Your task to perform on an android device: turn pop-ups off in chrome Image 0: 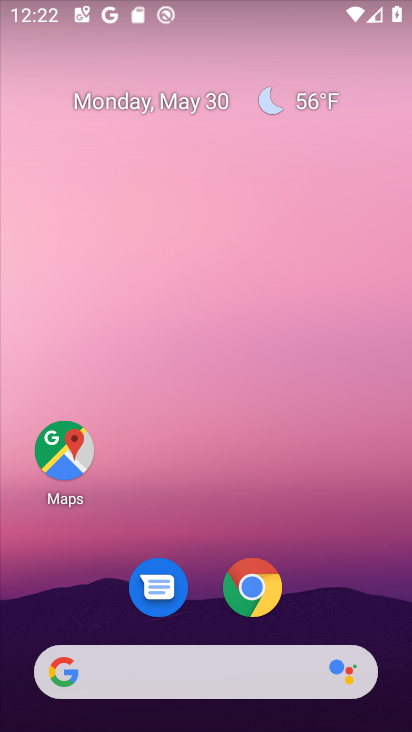
Step 0: click (273, 592)
Your task to perform on an android device: turn pop-ups off in chrome Image 1: 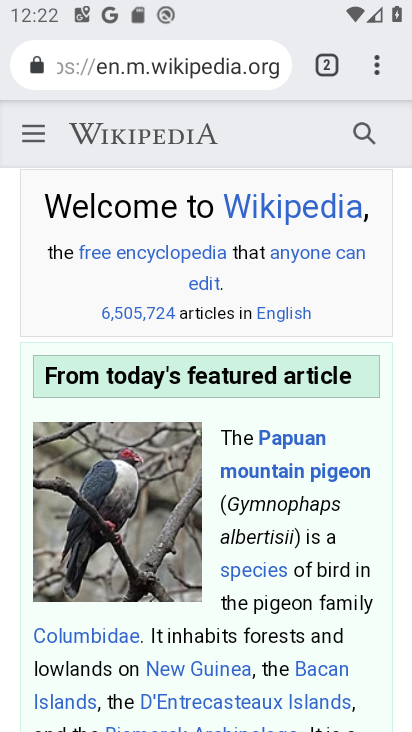
Step 1: click (382, 58)
Your task to perform on an android device: turn pop-ups off in chrome Image 2: 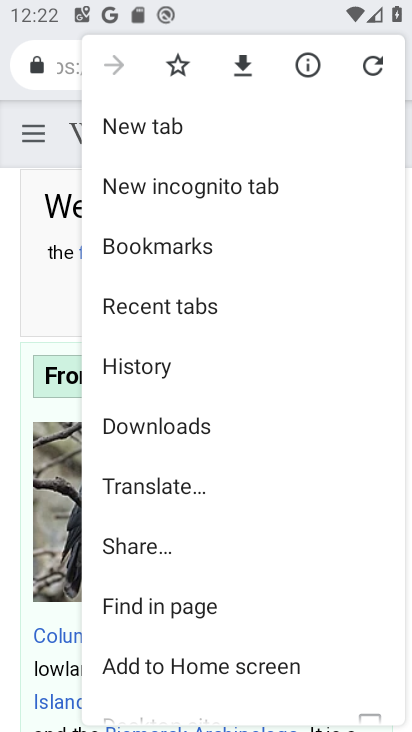
Step 2: drag from (249, 631) to (149, 197)
Your task to perform on an android device: turn pop-ups off in chrome Image 3: 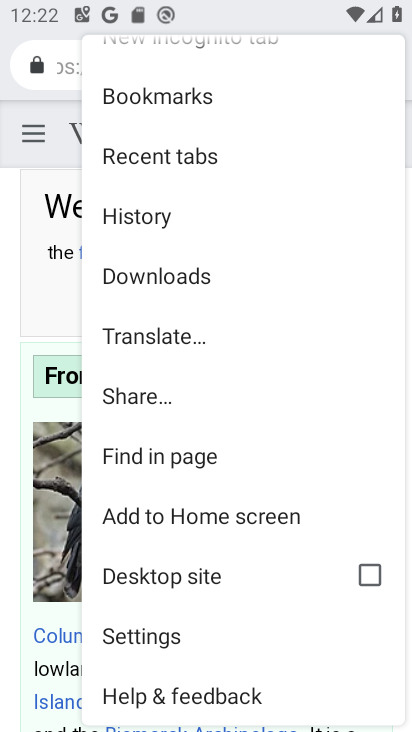
Step 3: drag from (211, 629) to (147, 228)
Your task to perform on an android device: turn pop-ups off in chrome Image 4: 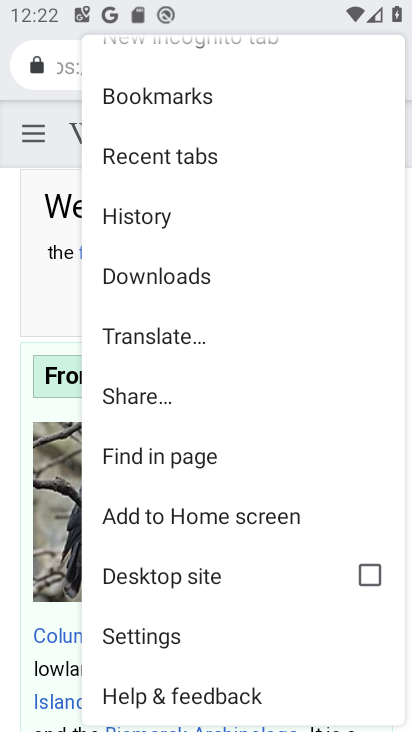
Step 4: click (198, 631)
Your task to perform on an android device: turn pop-ups off in chrome Image 5: 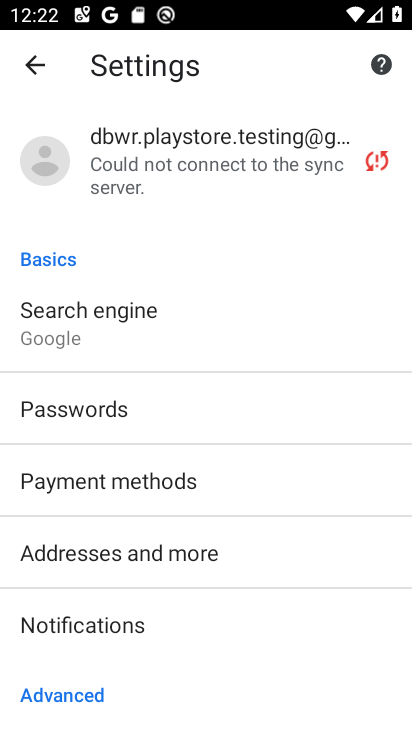
Step 5: drag from (222, 671) to (185, 221)
Your task to perform on an android device: turn pop-ups off in chrome Image 6: 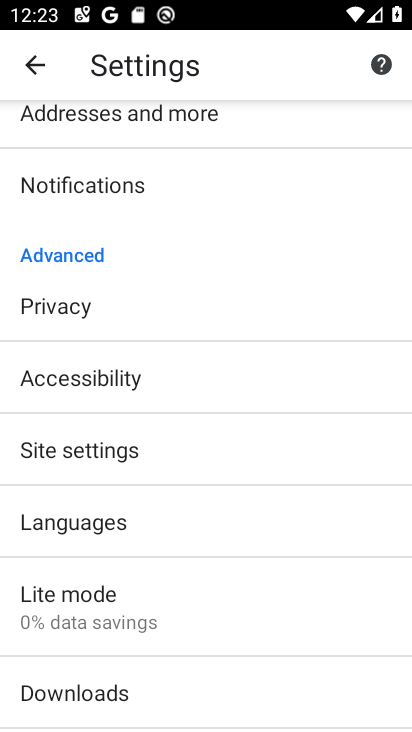
Step 6: click (171, 452)
Your task to perform on an android device: turn pop-ups off in chrome Image 7: 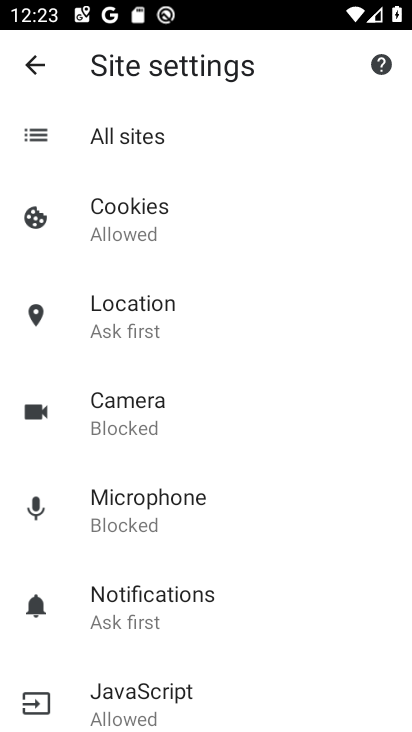
Step 7: drag from (206, 568) to (152, 183)
Your task to perform on an android device: turn pop-ups off in chrome Image 8: 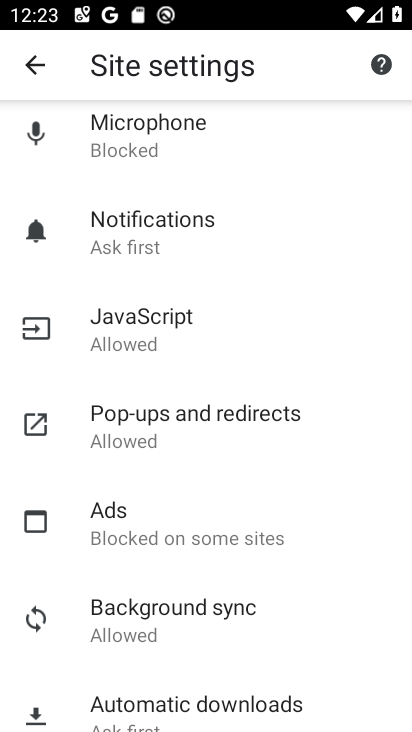
Step 8: click (206, 450)
Your task to perform on an android device: turn pop-ups off in chrome Image 9: 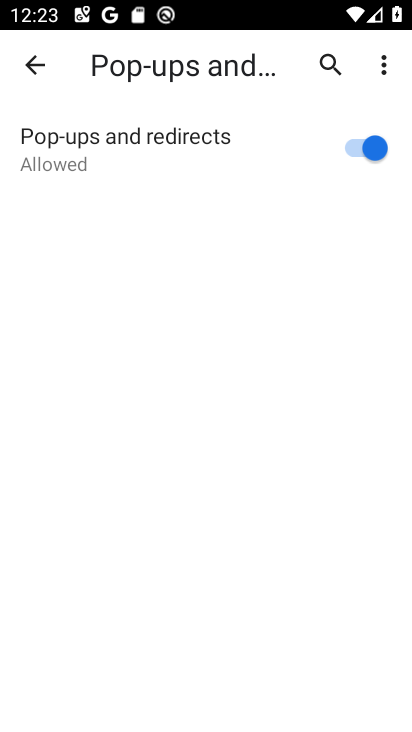
Step 9: click (350, 162)
Your task to perform on an android device: turn pop-ups off in chrome Image 10: 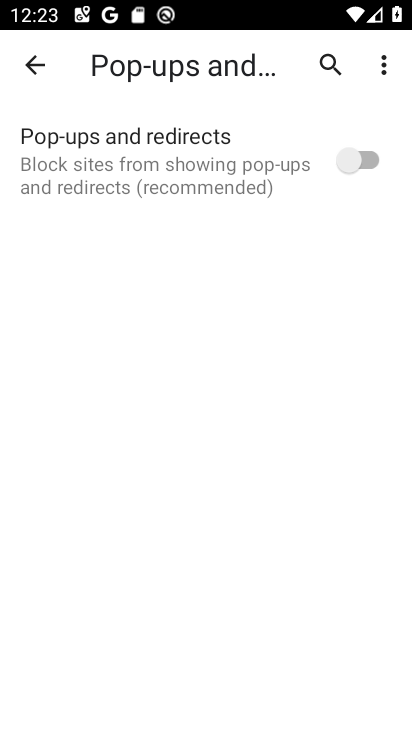
Step 10: task complete